Your task to perform on an android device: add a contact Image 0: 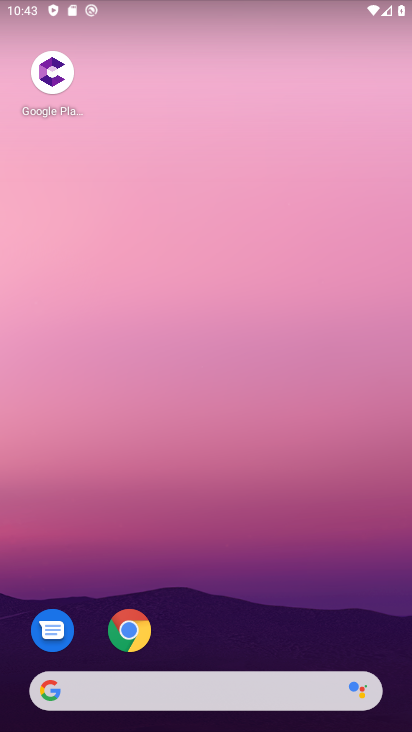
Step 0: drag from (202, 666) to (273, 331)
Your task to perform on an android device: add a contact Image 1: 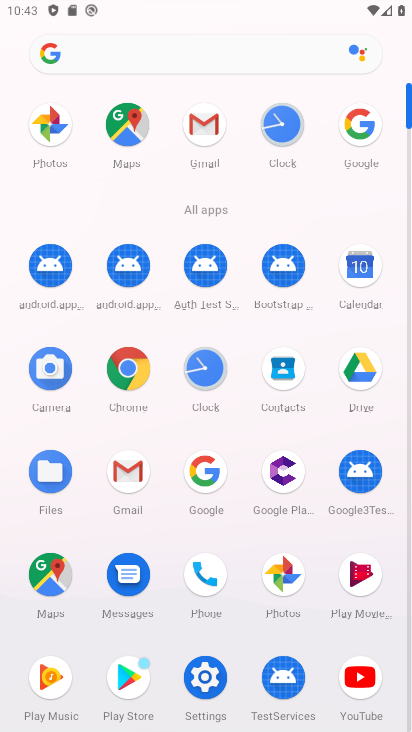
Step 1: click (291, 379)
Your task to perform on an android device: add a contact Image 2: 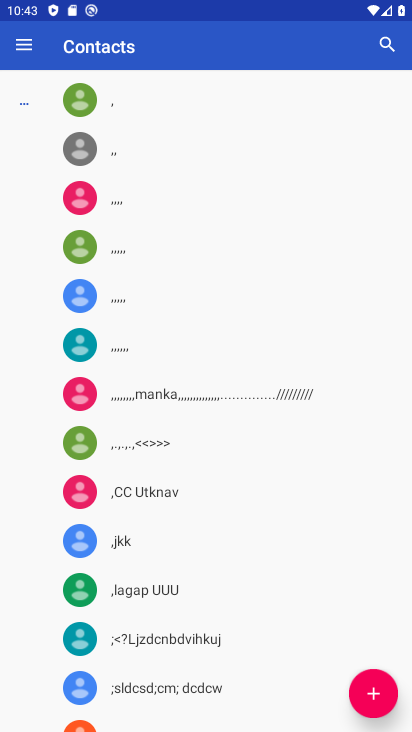
Step 2: click (384, 691)
Your task to perform on an android device: add a contact Image 3: 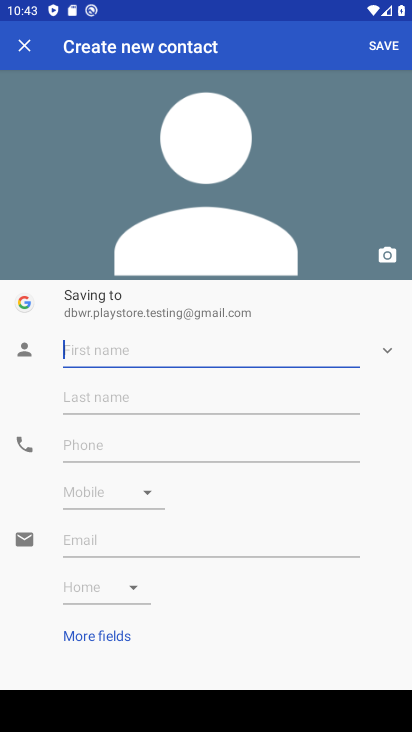
Step 3: click (111, 342)
Your task to perform on an android device: add a contact Image 4: 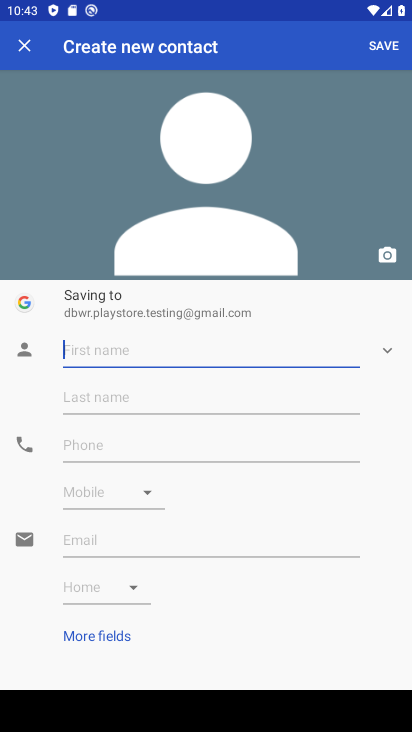
Step 4: type "kkkkkk"
Your task to perform on an android device: add a contact Image 5: 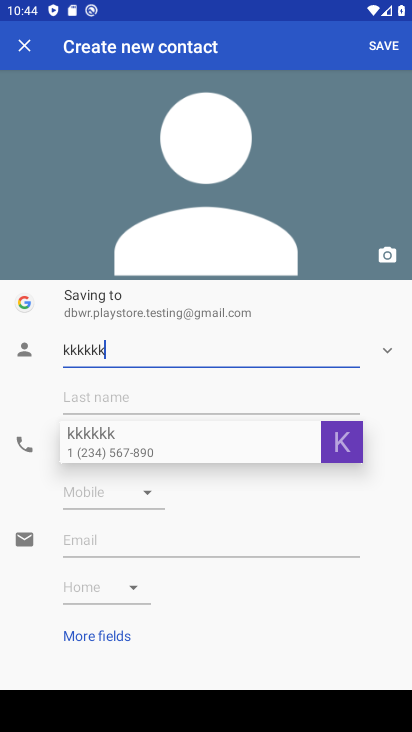
Step 5: type "qqqqqqq"
Your task to perform on an android device: add a contact Image 6: 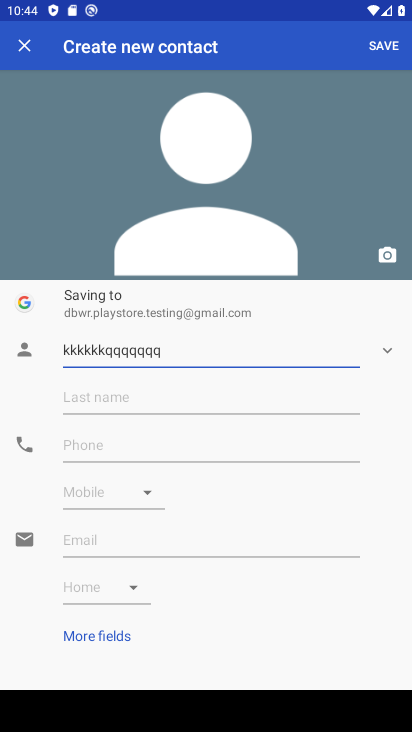
Step 6: click (108, 447)
Your task to perform on an android device: add a contact Image 7: 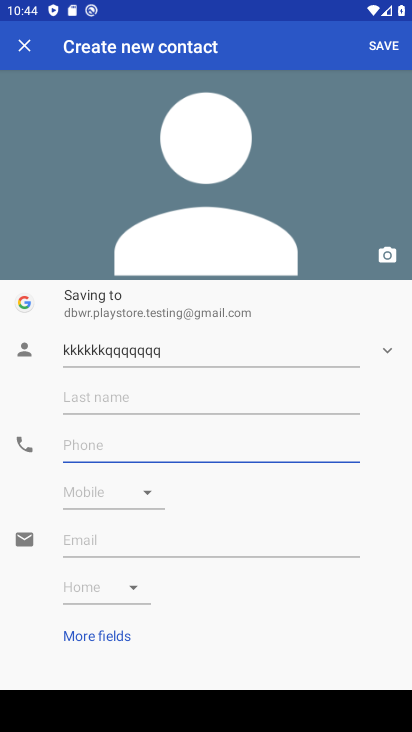
Step 7: type "2777988912"
Your task to perform on an android device: add a contact Image 8: 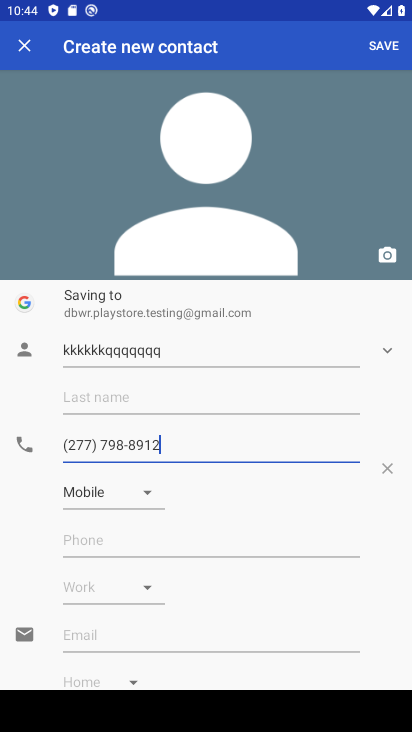
Step 8: click (394, 63)
Your task to perform on an android device: add a contact Image 9: 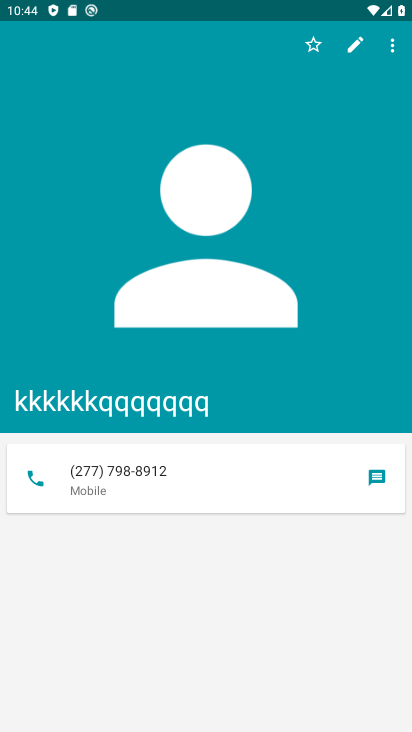
Step 9: task complete